Your task to perform on an android device: turn off smart reply in the gmail app Image 0: 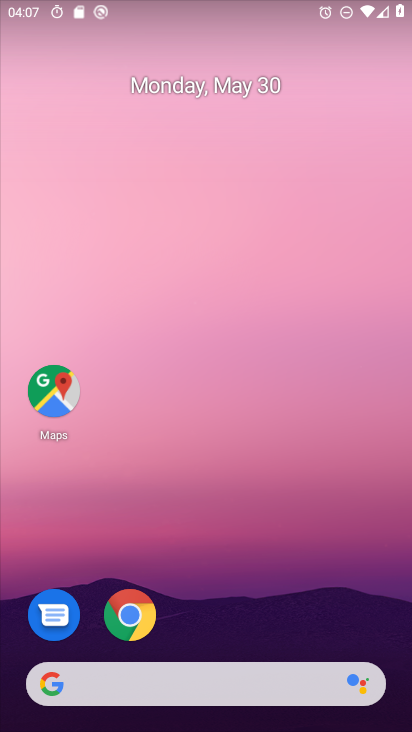
Step 0: drag from (242, 585) to (144, 119)
Your task to perform on an android device: turn off smart reply in the gmail app Image 1: 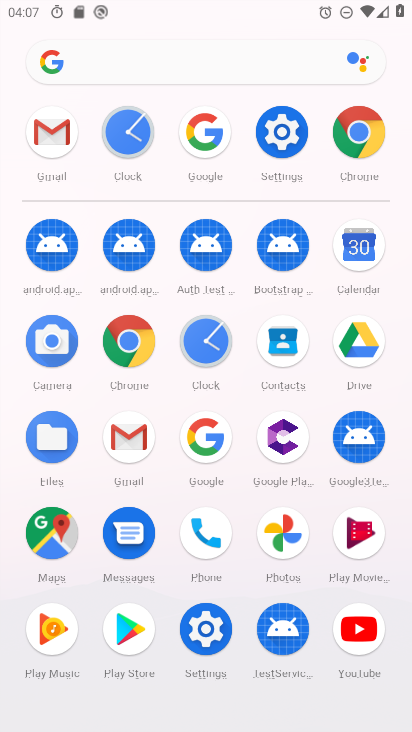
Step 1: click (50, 133)
Your task to perform on an android device: turn off smart reply in the gmail app Image 2: 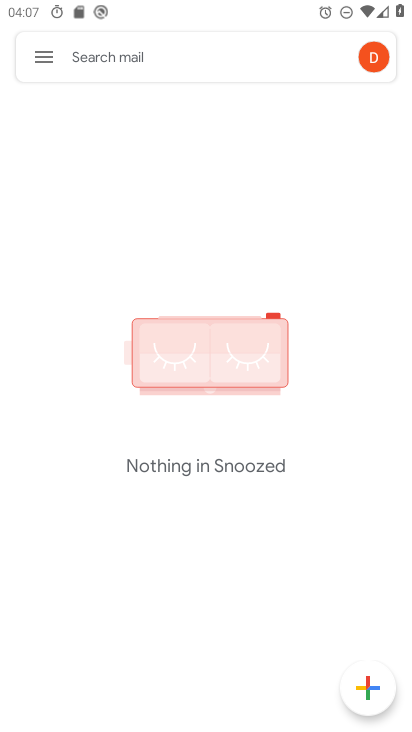
Step 2: click (46, 62)
Your task to perform on an android device: turn off smart reply in the gmail app Image 3: 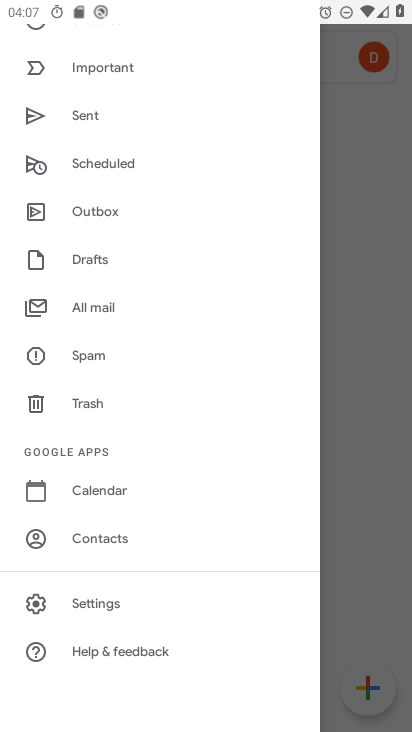
Step 3: click (102, 599)
Your task to perform on an android device: turn off smart reply in the gmail app Image 4: 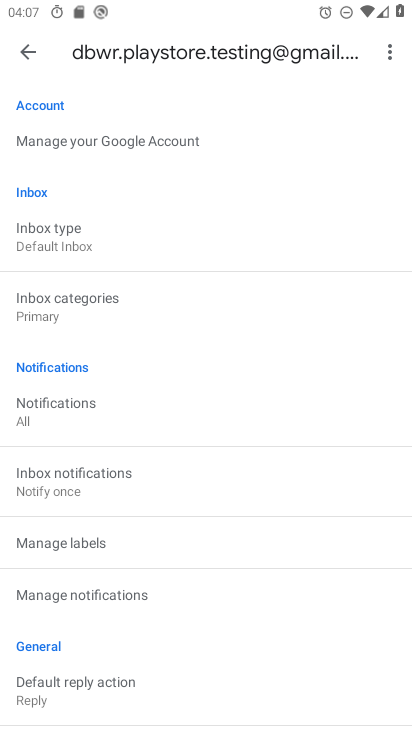
Step 4: drag from (97, 499) to (92, 387)
Your task to perform on an android device: turn off smart reply in the gmail app Image 5: 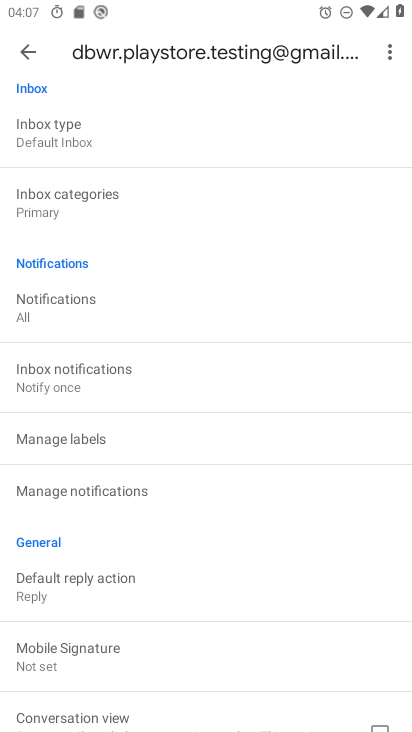
Step 5: drag from (88, 525) to (126, 430)
Your task to perform on an android device: turn off smart reply in the gmail app Image 6: 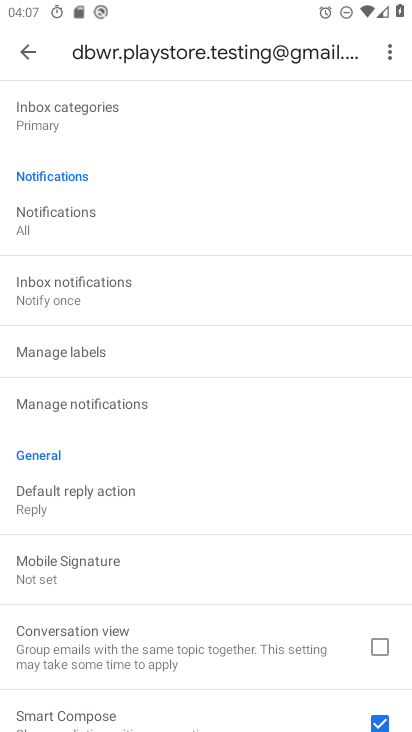
Step 6: drag from (82, 587) to (172, 473)
Your task to perform on an android device: turn off smart reply in the gmail app Image 7: 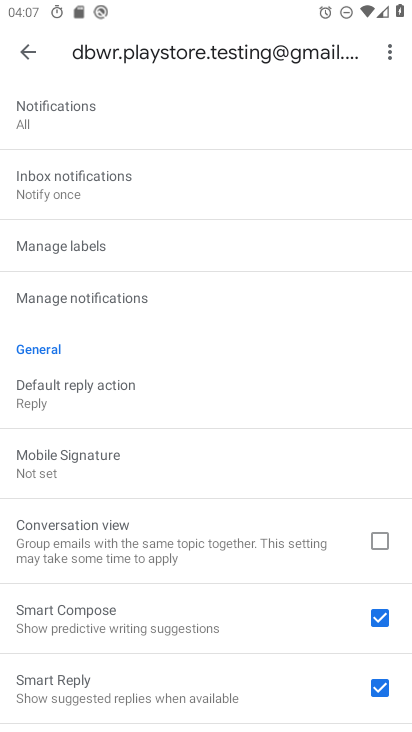
Step 7: drag from (115, 635) to (197, 518)
Your task to perform on an android device: turn off smart reply in the gmail app Image 8: 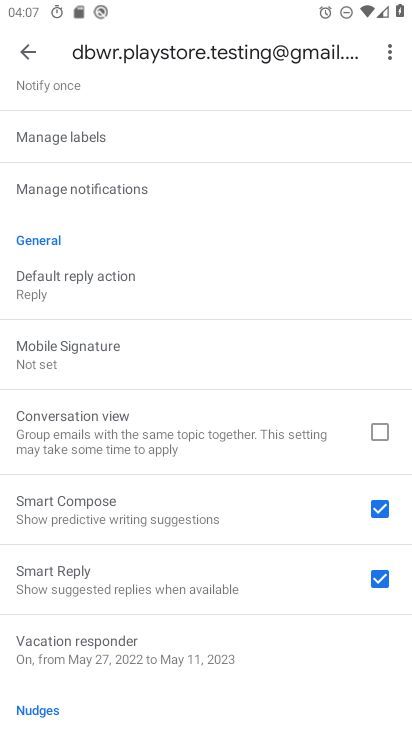
Step 8: click (386, 571)
Your task to perform on an android device: turn off smart reply in the gmail app Image 9: 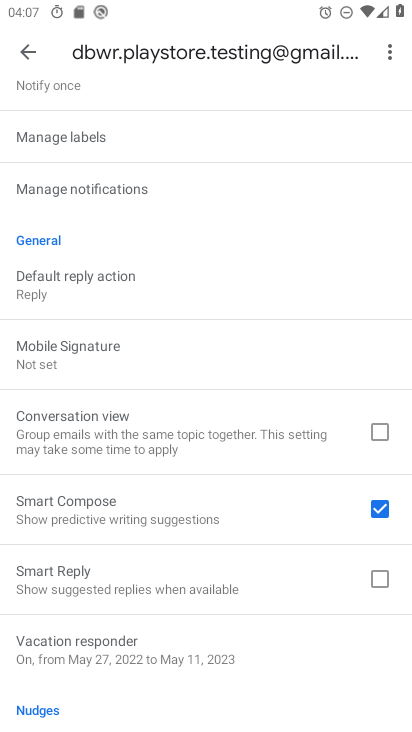
Step 9: task complete